Your task to perform on an android device: move a message to another label in the gmail app Image 0: 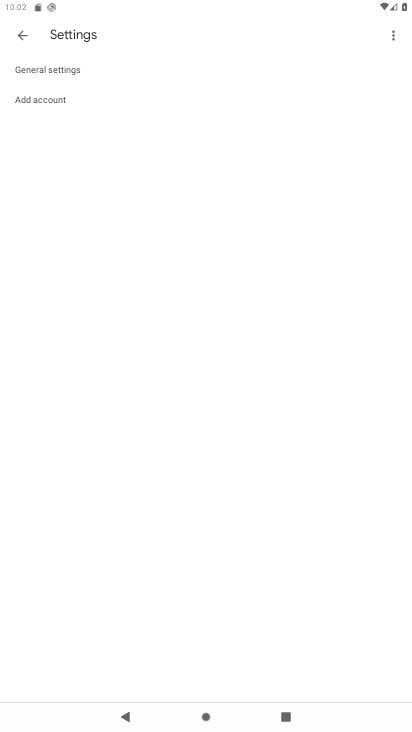
Step 0: press home button
Your task to perform on an android device: move a message to another label in the gmail app Image 1: 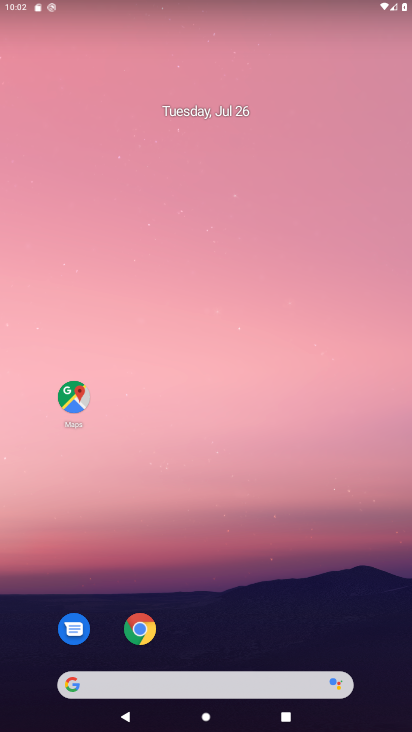
Step 1: drag from (189, 689) to (230, 174)
Your task to perform on an android device: move a message to another label in the gmail app Image 2: 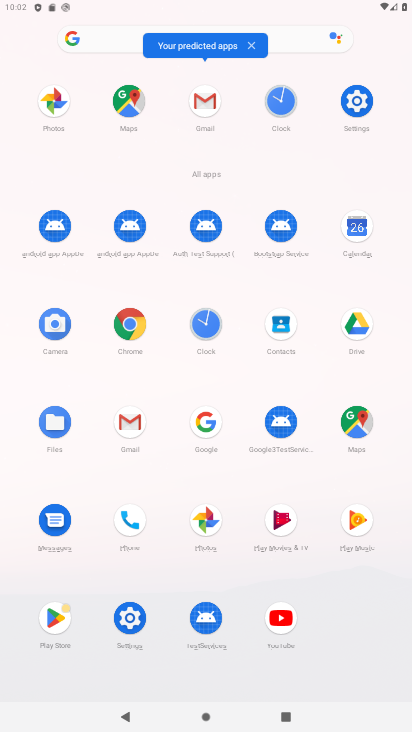
Step 2: click (204, 102)
Your task to perform on an android device: move a message to another label in the gmail app Image 3: 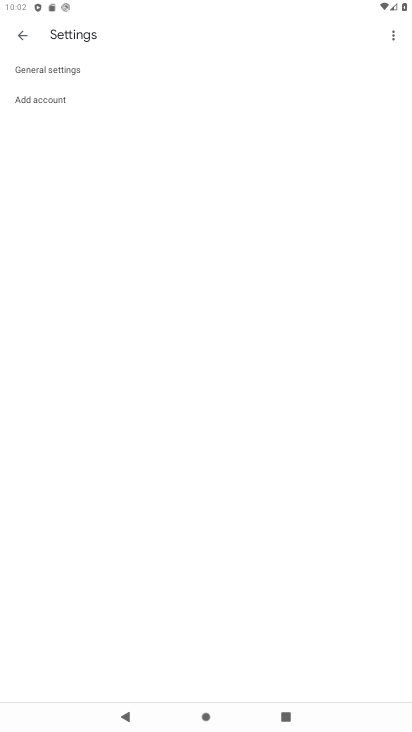
Step 3: press back button
Your task to perform on an android device: move a message to another label in the gmail app Image 4: 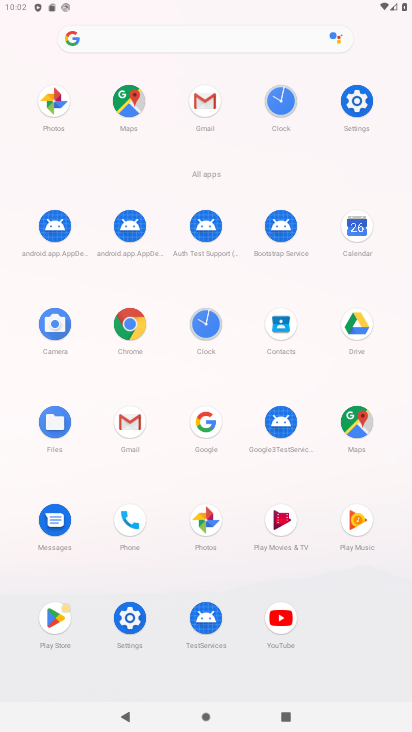
Step 4: click (200, 101)
Your task to perform on an android device: move a message to another label in the gmail app Image 5: 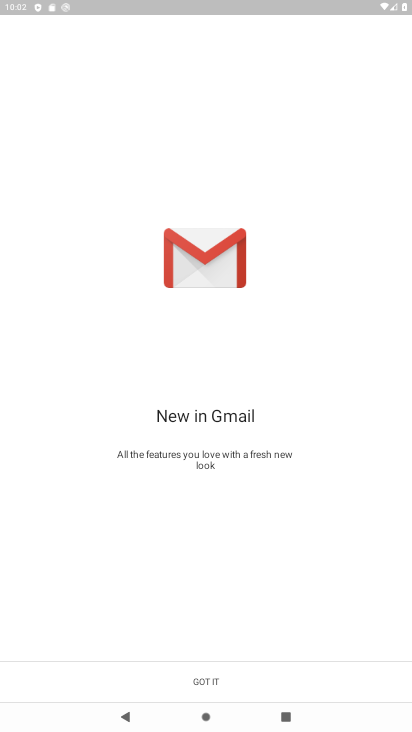
Step 5: click (210, 676)
Your task to perform on an android device: move a message to another label in the gmail app Image 6: 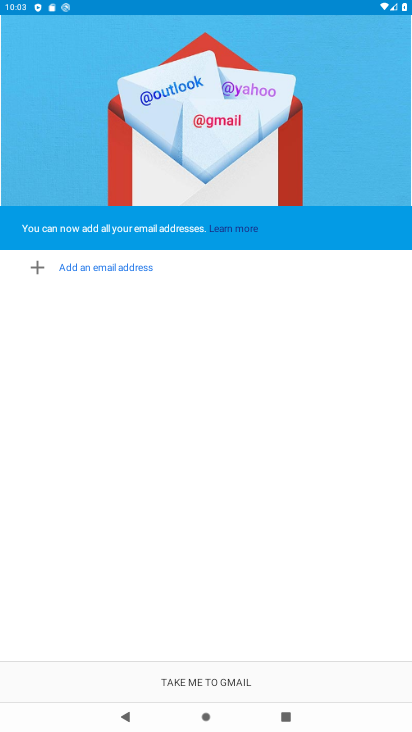
Step 6: click (202, 681)
Your task to perform on an android device: move a message to another label in the gmail app Image 7: 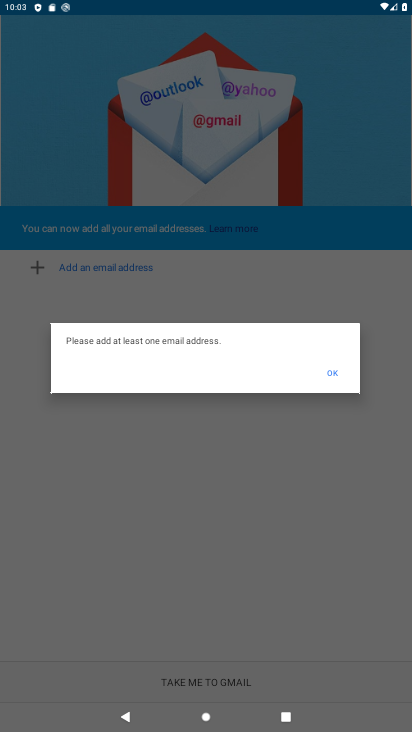
Step 7: click (332, 372)
Your task to perform on an android device: move a message to another label in the gmail app Image 8: 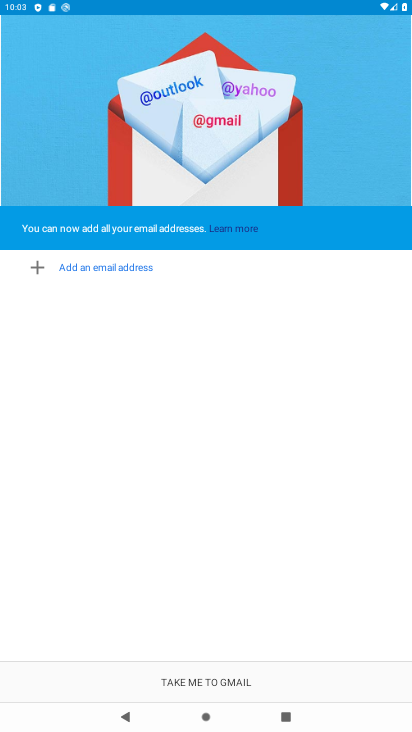
Step 8: click (181, 681)
Your task to perform on an android device: move a message to another label in the gmail app Image 9: 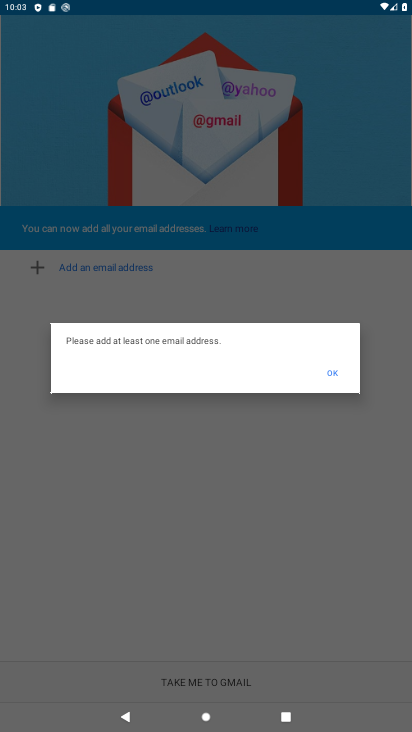
Step 9: task complete